Your task to perform on an android device: Open the phone app and click the voicemail tab. Image 0: 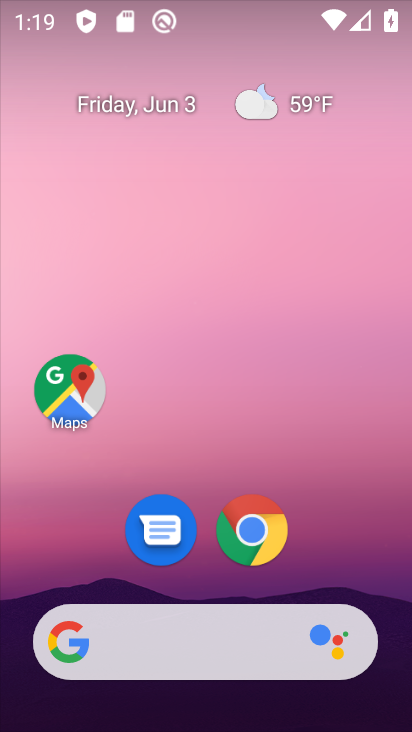
Step 0: drag from (316, 581) to (244, 55)
Your task to perform on an android device: Open the phone app and click the voicemail tab. Image 1: 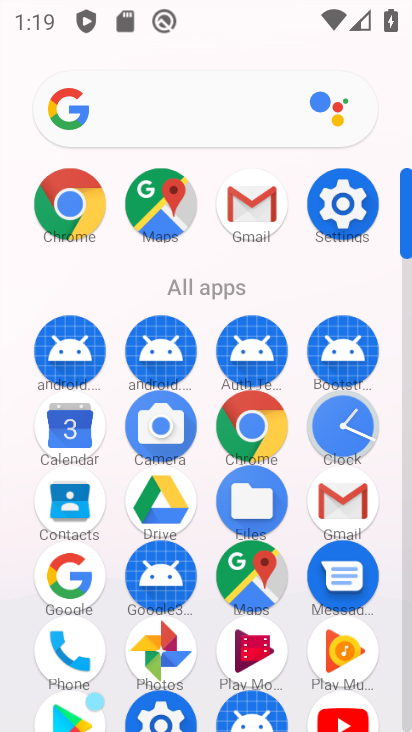
Step 1: click (73, 658)
Your task to perform on an android device: Open the phone app and click the voicemail tab. Image 2: 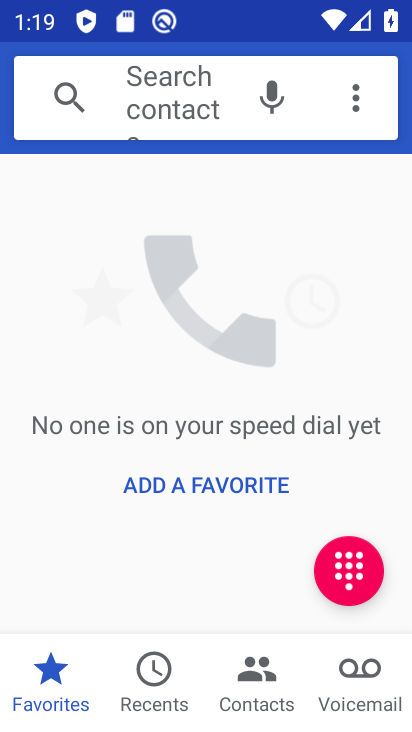
Step 2: click (353, 697)
Your task to perform on an android device: Open the phone app and click the voicemail tab. Image 3: 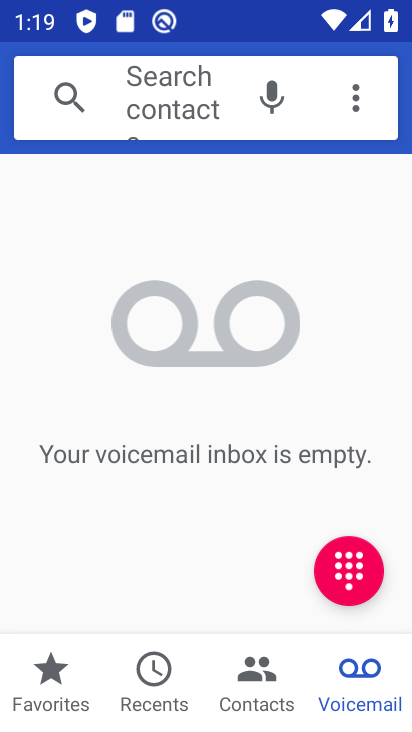
Step 3: task complete